Your task to perform on an android device: Open settings Image 0: 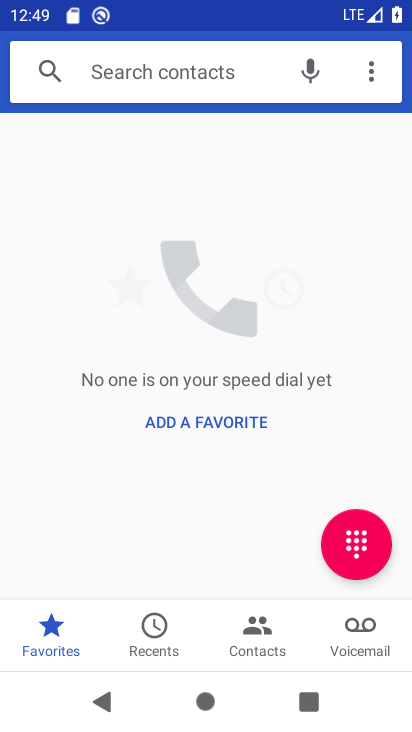
Step 0: press home button
Your task to perform on an android device: Open settings Image 1: 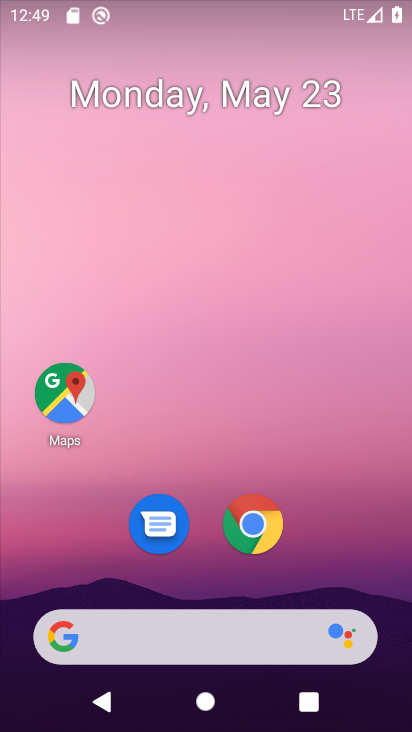
Step 1: drag from (230, 425) to (220, 0)
Your task to perform on an android device: Open settings Image 2: 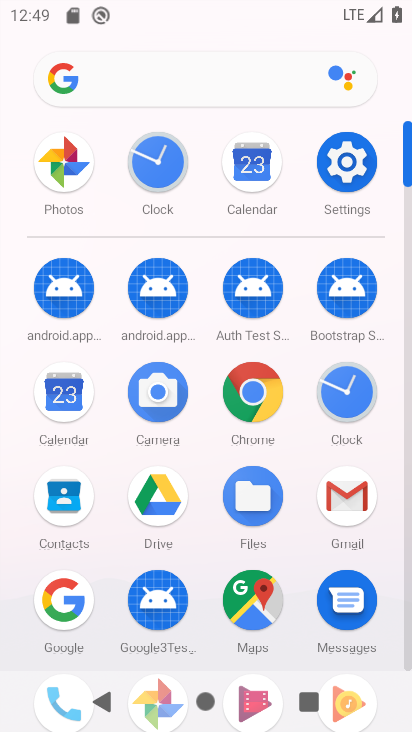
Step 2: click (336, 162)
Your task to perform on an android device: Open settings Image 3: 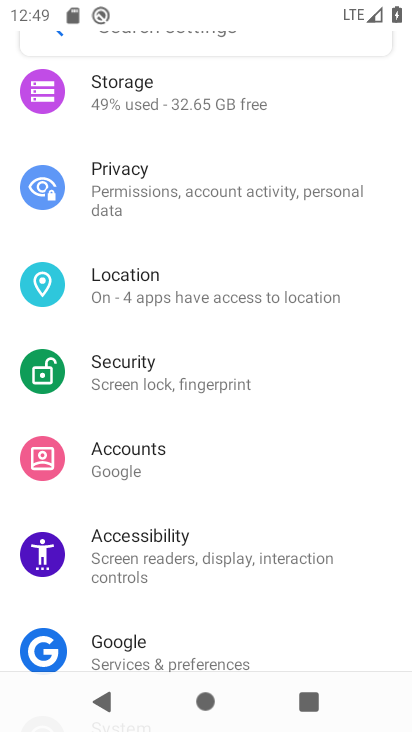
Step 3: task complete